Your task to perform on an android device: turn on translation in the chrome app Image 0: 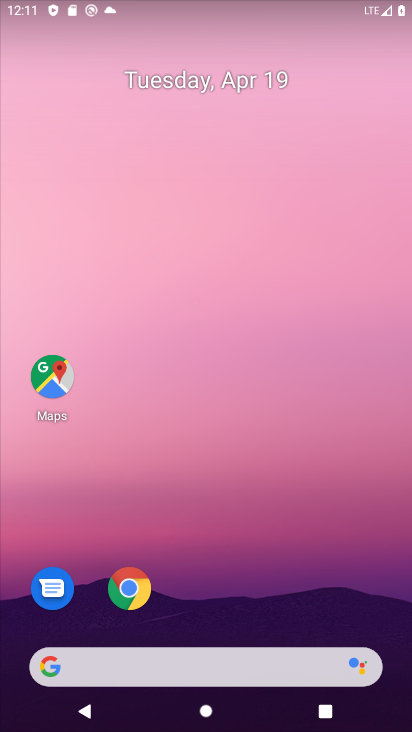
Step 0: drag from (376, 545) to (373, 87)
Your task to perform on an android device: turn on translation in the chrome app Image 1: 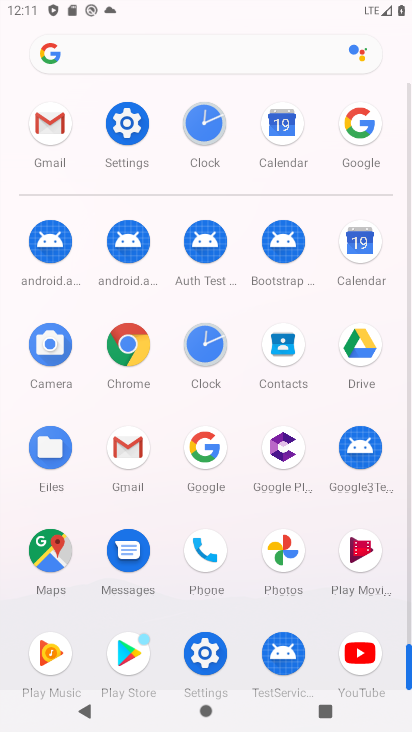
Step 1: click (129, 353)
Your task to perform on an android device: turn on translation in the chrome app Image 2: 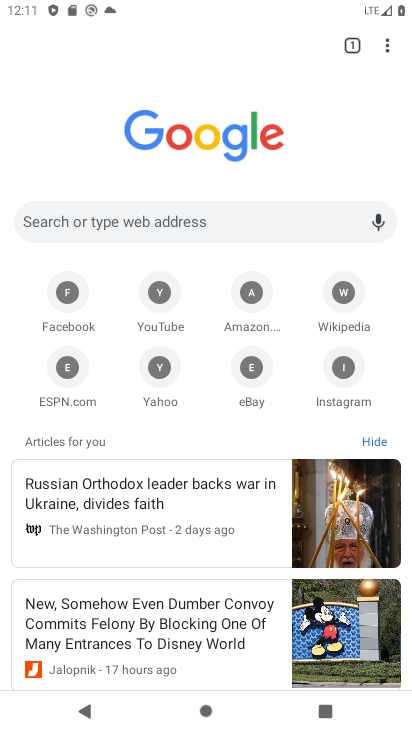
Step 2: click (386, 46)
Your task to perform on an android device: turn on translation in the chrome app Image 3: 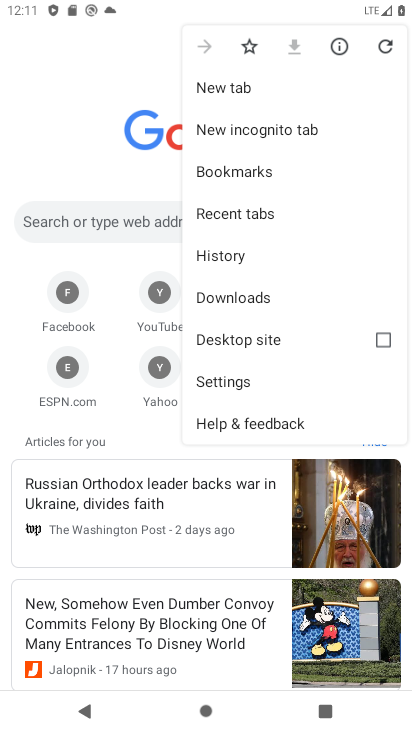
Step 3: click (244, 385)
Your task to perform on an android device: turn on translation in the chrome app Image 4: 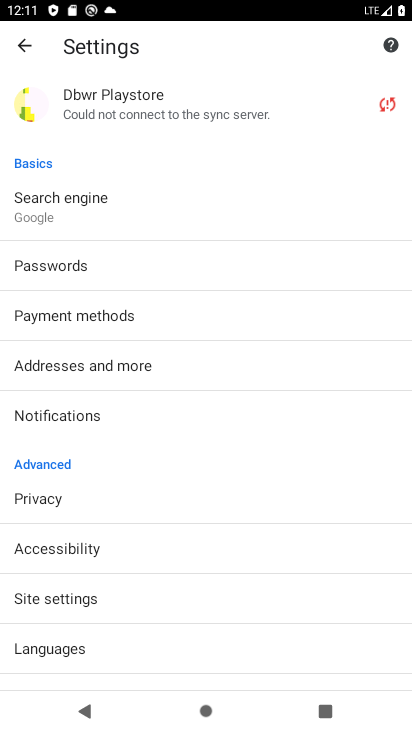
Step 4: drag from (274, 473) to (280, 281)
Your task to perform on an android device: turn on translation in the chrome app Image 5: 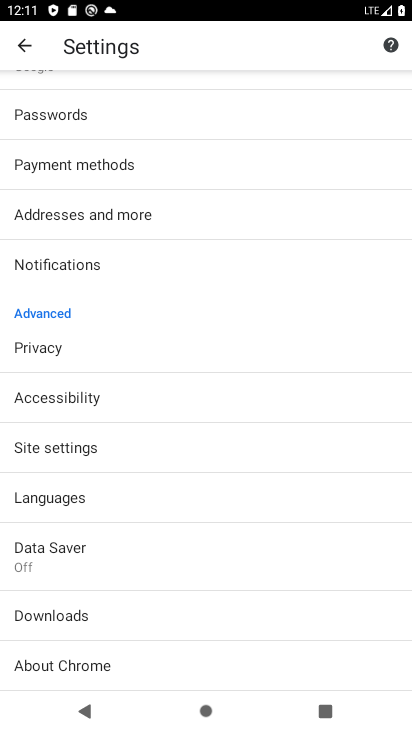
Step 5: drag from (299, 503) to (313, 325)
Your task to perform on an android device: turn on translation in the chrome app Image 6: 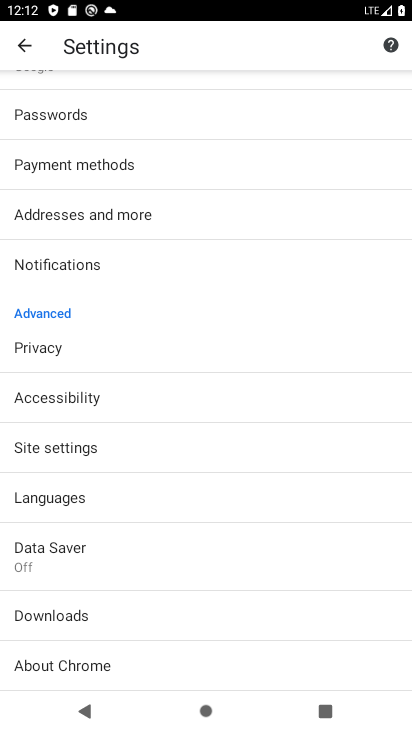
Step 6: click (279, 517)
Your task to perform on an android device: turn on translation in the chrome app Image 7: 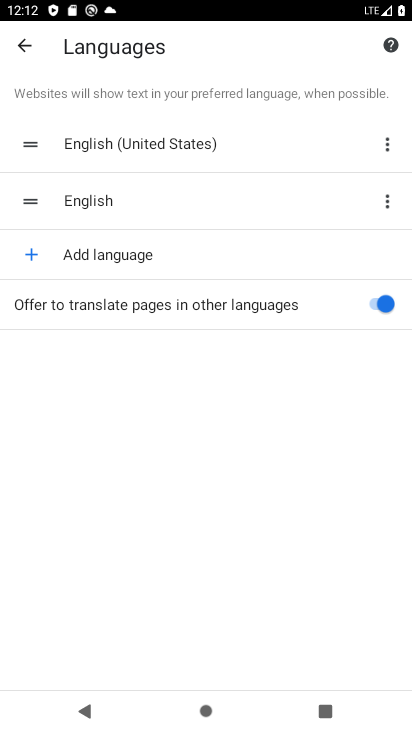
Step 7: task complete